Your task to perform on an android device: Search for seafood restaurants on Google Maps Image 0: 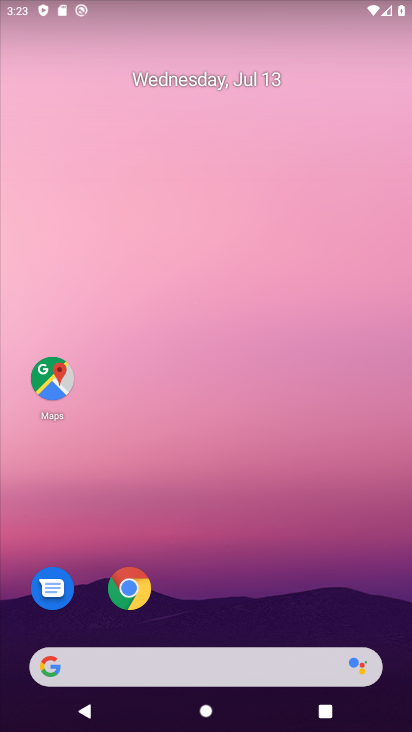
Step 0: click (393, 519)
Your task to perform on an android device: Search for seafood restaurants on Google Maps Image 1: 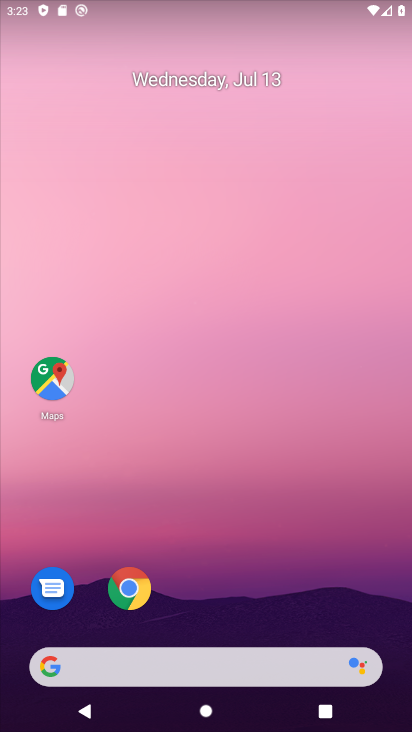
Step 1: drag from (208, 350) to (202, 305)
Your task to perform on an android device: Search for seafood restaurants on Google Maps Image 2: 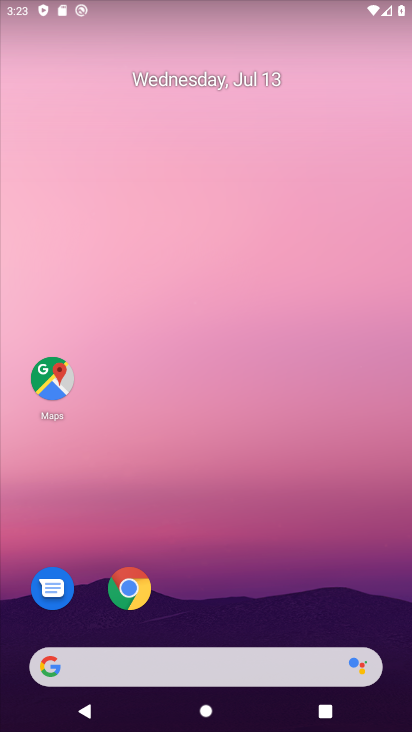
Step 2: drag from (246, 546) to (132, 146)
Your task to perform on an android device: Search for seafood restaurants on Google Maps Image 3: 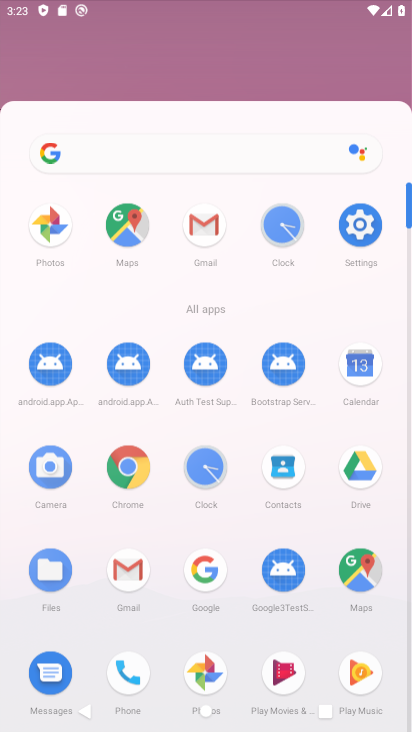
Step 3: drag from (171, 365) to (101, 120)
Your task to perform on an android device: Search for seafood restaurants on Google Maps Image 4: 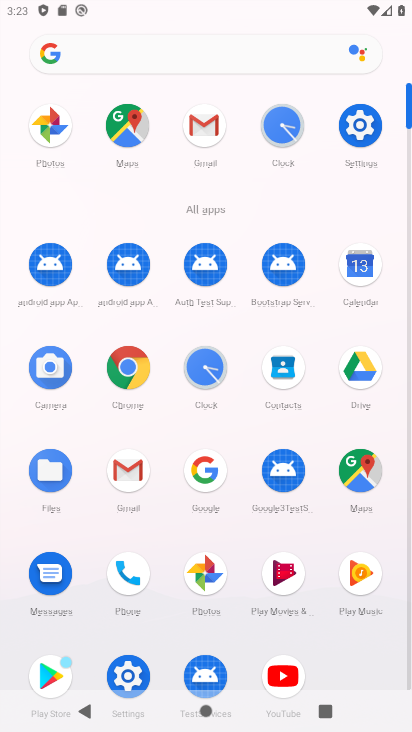
Step 4: click (361, 479)
Your task to perform on an android device: Search for seafood restaurants on Google Maps Image 5: 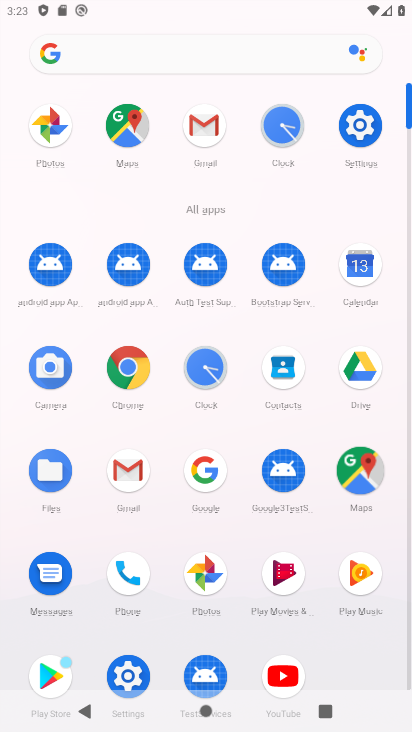
Step 5: click (357, 476)
Your task to perform on an android device: Search for seafood restaurants on Google Maps Image 6: 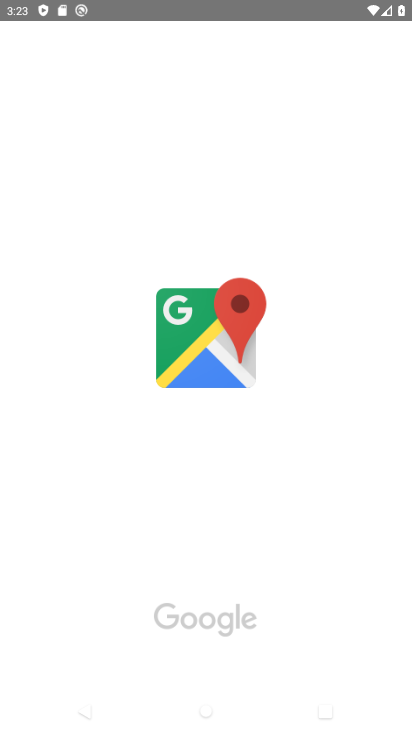
Step 6: click (360, 477)
Your task to perform on an android device: Search for seafood restaurants on Google Maps Image 7: 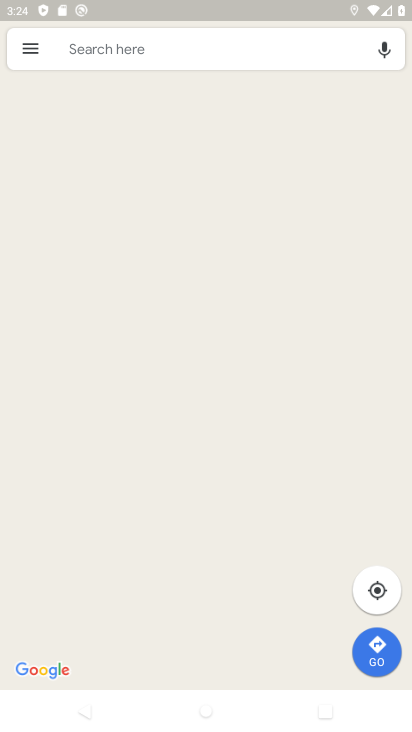
Step 7: click (78, 45)
Your task to perform on an android device: Search for seafood restaurants on Google Maps Image 8: 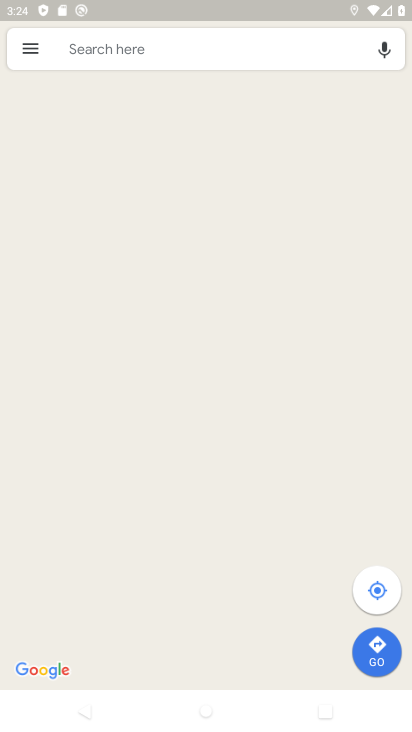
Step 8: click (84, 43)
Your task to perform on an android device: Search for seafood restaurants on Google Maps Image 9: 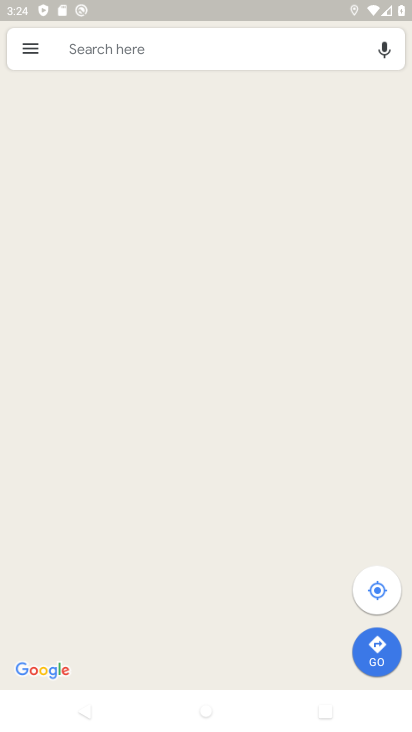
Step 9: click (88, 44)
Your task to perform on an android device: Search for seafood restaurants on Google Maps Image 10: 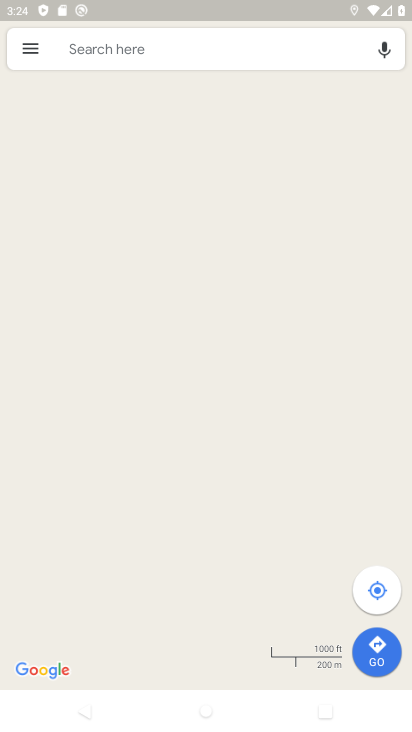
Step 10: click (95, 48)
Your task to perform on an android device: Search for seafood restaurants on Google Maps Image 11: 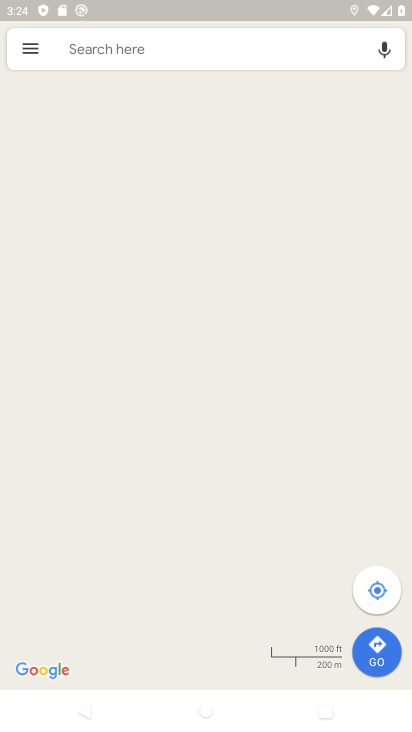
Step 11: click (95, 48)
Your task to perform on an android device: Search for seafood restaurants on Google Maps Image 12: 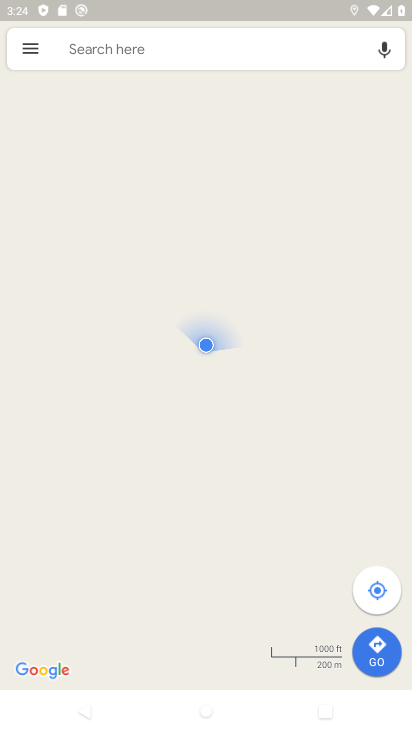
Step 12: click (97, 48)
Your task to perform on an android device: Search for seafood restaurants on Google Maps Image 13: 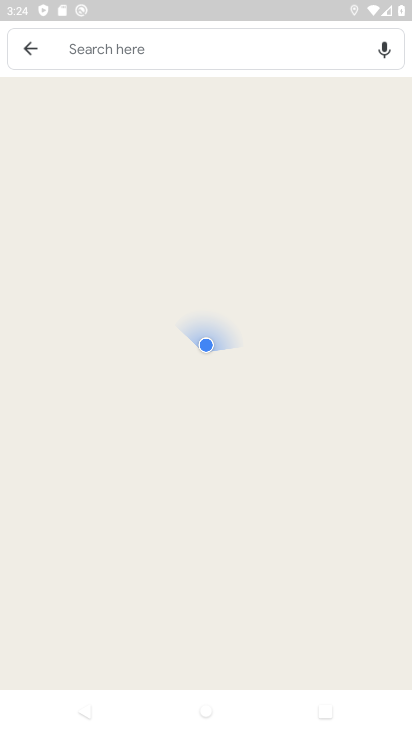
Step 13: click (101, 50)
Your task to perform on an android device: Search for seafood restaurants on Google Maps Image 14: 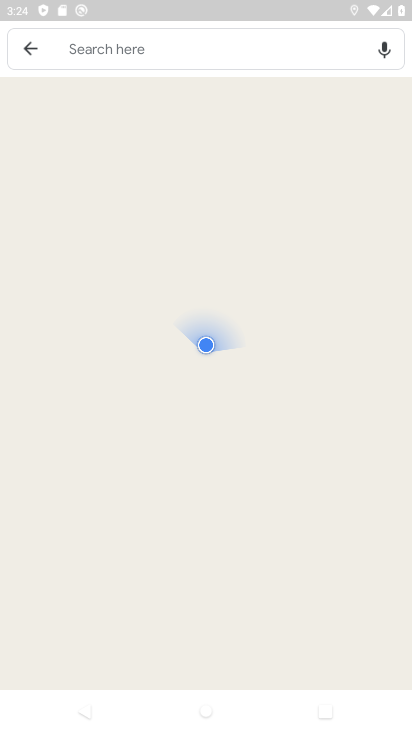
Step 14: click (102, 51)
Your task to perform on an android device: Search for seafood restaurants on Google Maps Image 15: 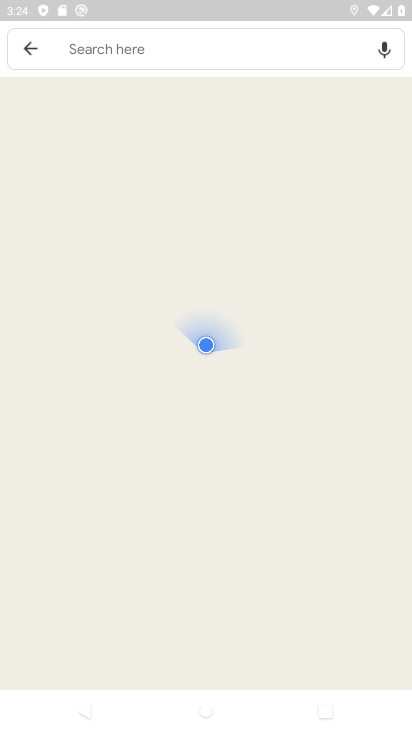
Step 15: click (109, 50)
Your task to perform on an android device: Search for seafood restaurants on Google Maps Image 16: 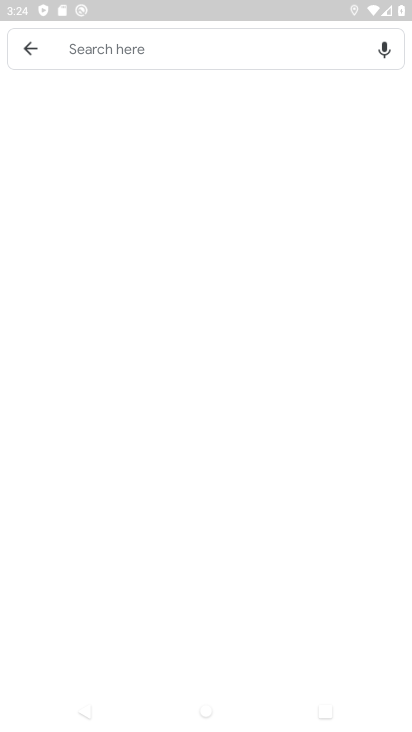
Step 16: click (133, 46)
Your task to perform on an android device: Search for seafood restaurants on Google Maps Image 17: 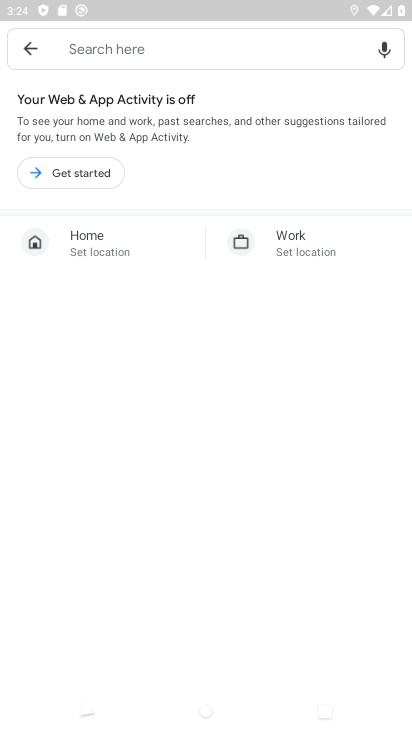
Step 17: click (135, 50)
Your task to perform on an android device: Search for seafood restaurants on Google Maps Image 18: 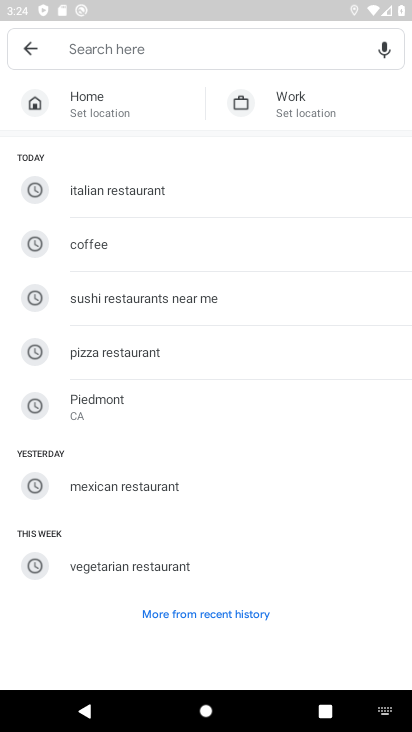
Step 18: type "seafood restaurants"
Your task to perform on an android device: Search for seafood restaurants on Google Maps Image 19: 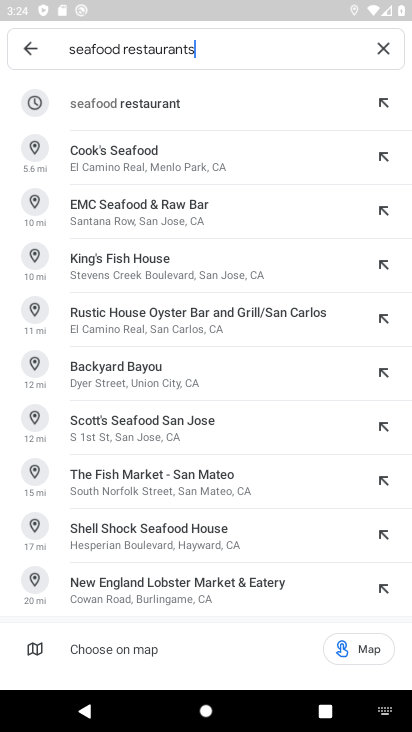
Step 19: click (124, 108)
Your task to perform on an android device: Search for seafood restaurants on Google Maps Image 20: 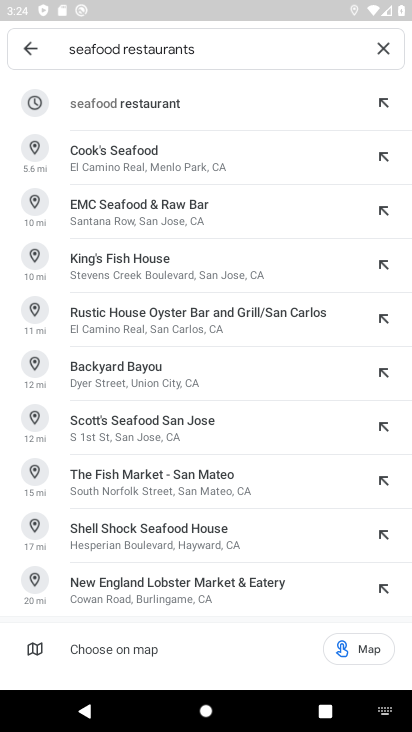
Step 20: click (132, 101)
Your task to perform on an android device: Search for seafood restaurants on Google Maps Image 21: 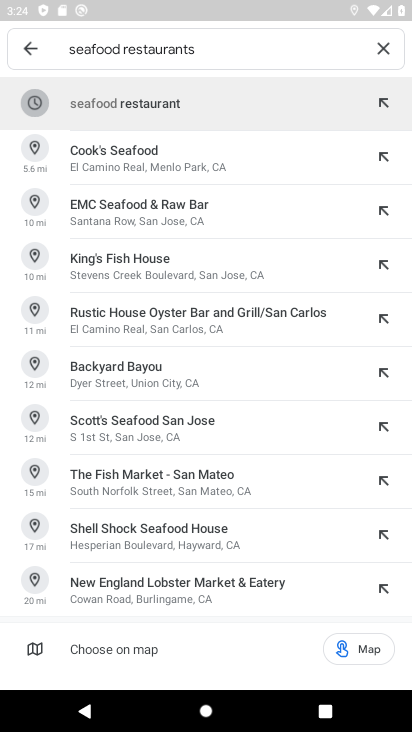
Step 21: click (139, 98)
Your task to perform on an android device: Search for seafood restaurants on Google Maps Image 22: 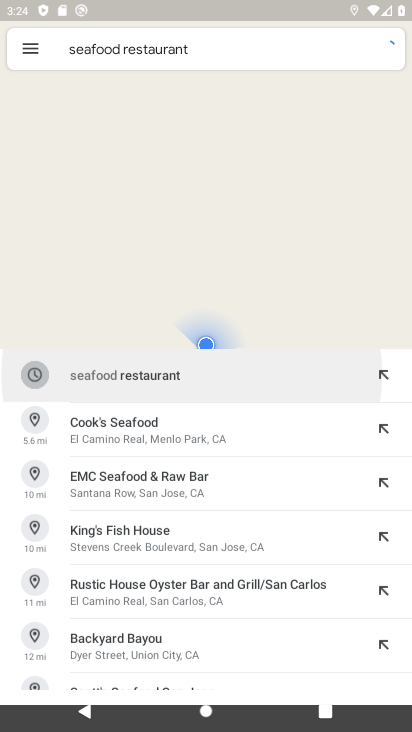
Step 22: click (146, 110)
Your task to perform on an android device: Search for seafood restaurants on Google Maps Image 23: 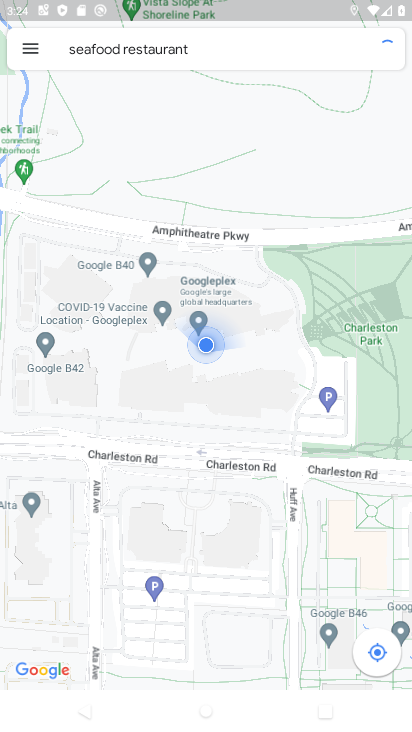
Step 23: task complete